Your task to perform on an android device: View the shopping cart on amazon. Image 0: 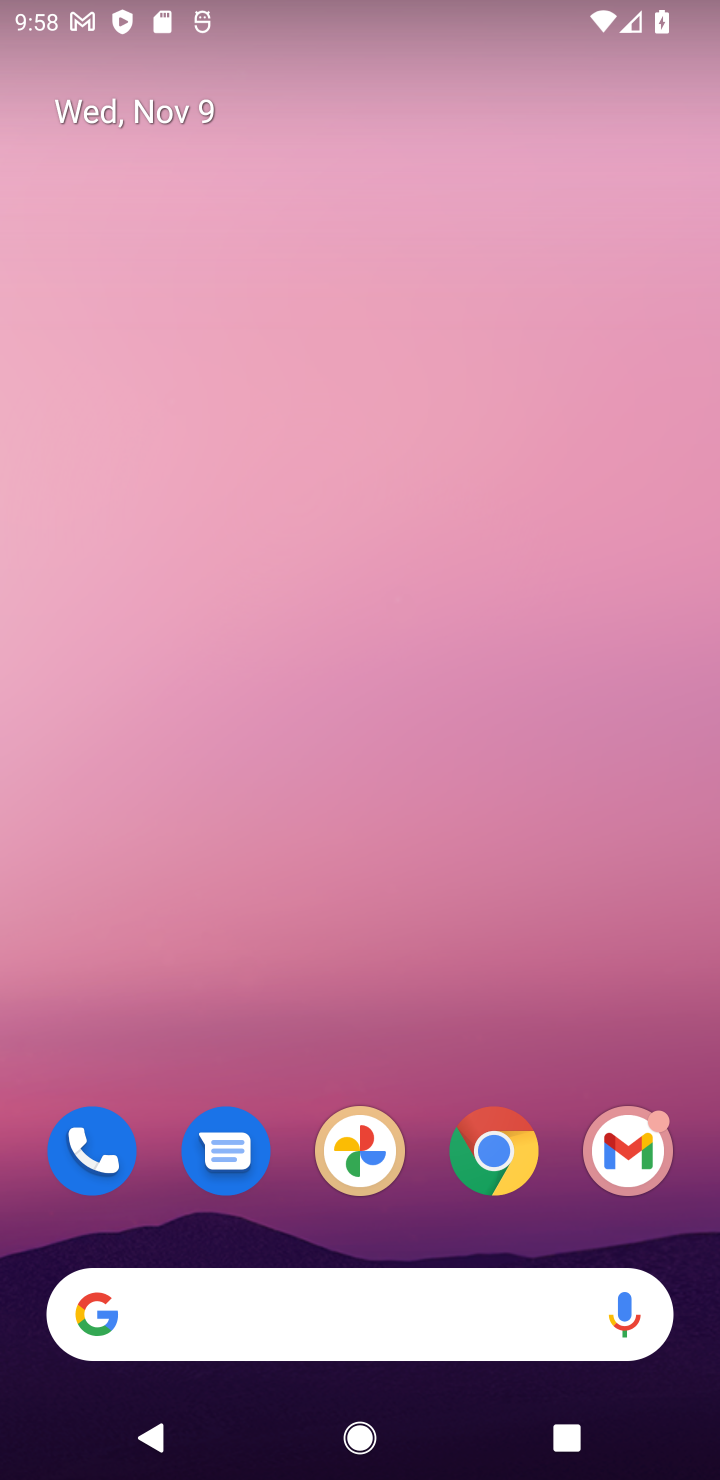
Step 0: click (492, 1138)
Your task to perform on an android device: View the shopping cart on amazon. Image 1: 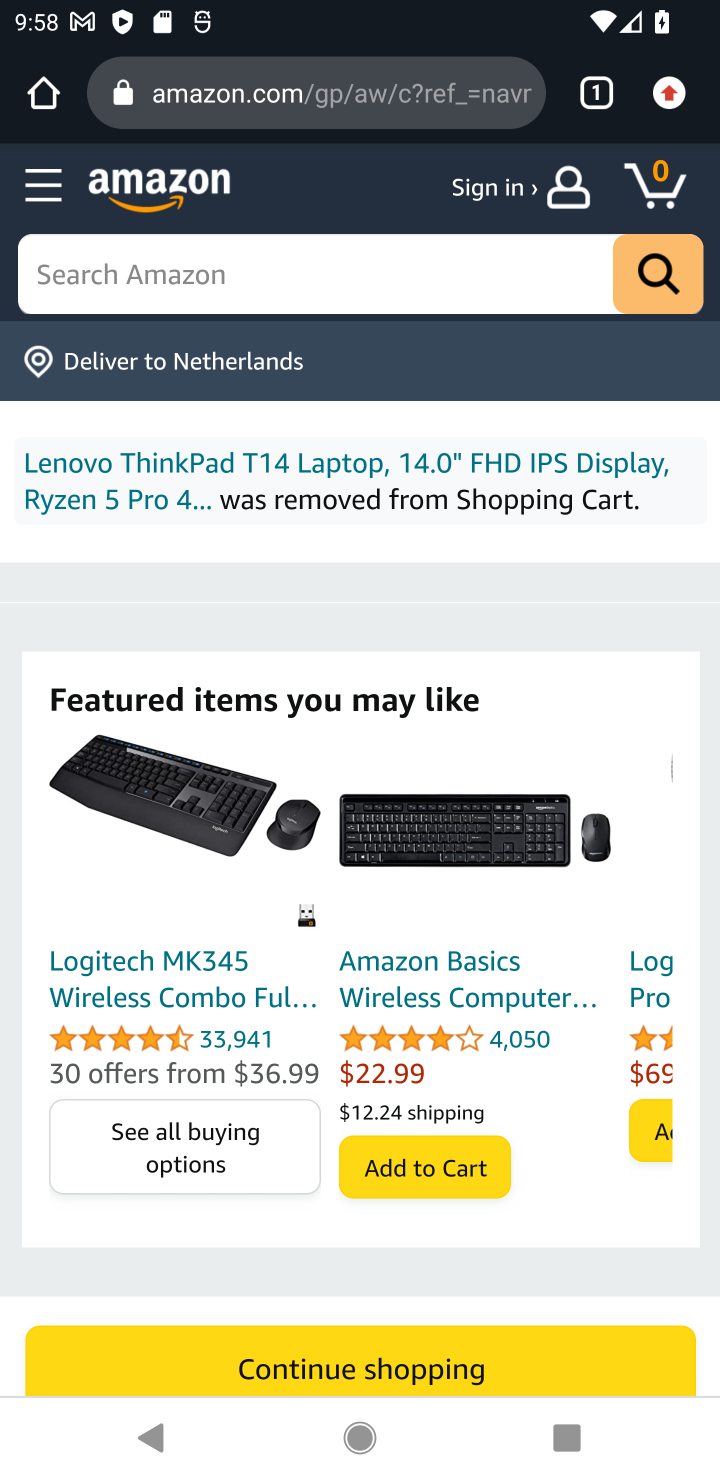
Step 1: click (670, 194)
Your task to perform on an android device: View the shopping cart on amazon. Image 2: 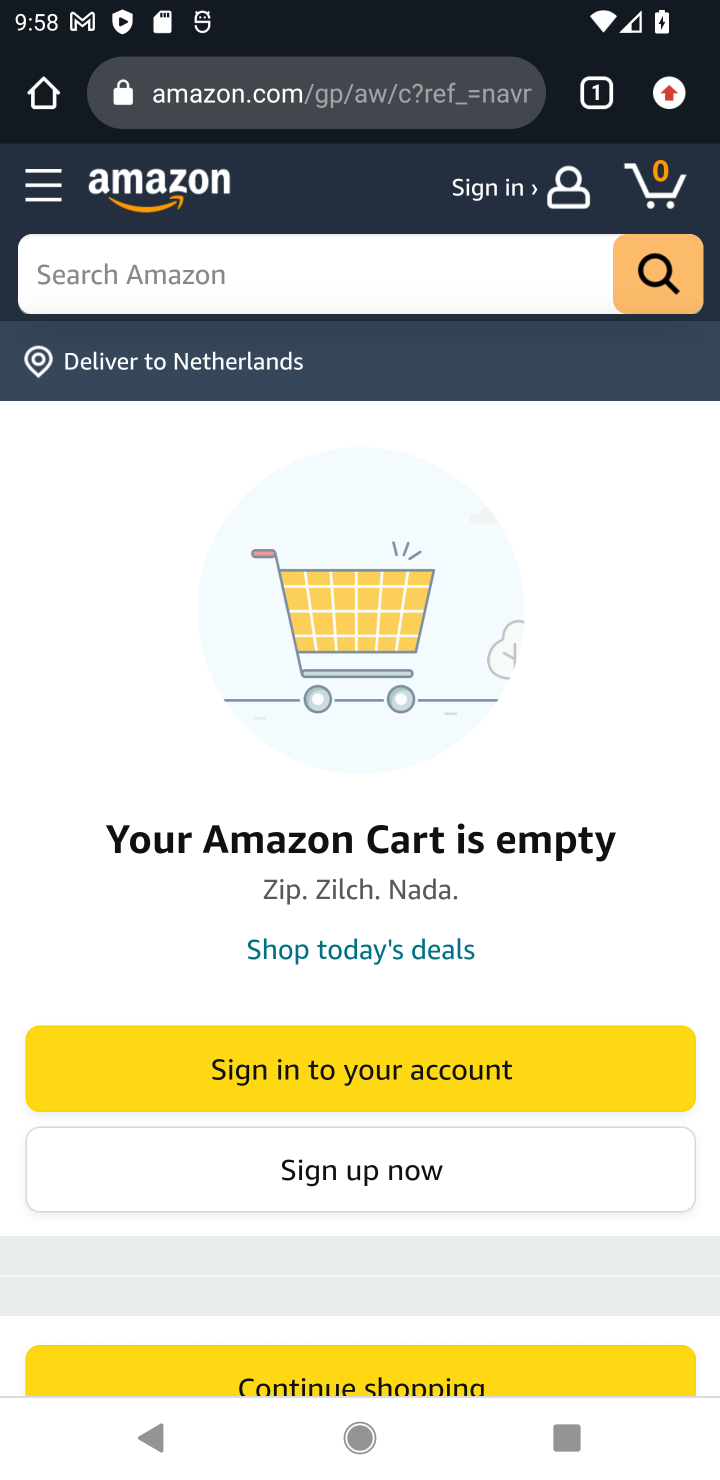
Step 2: task complete